Your task to perform on an android device: Open Google Maps and go to "Timeline" Image 0: 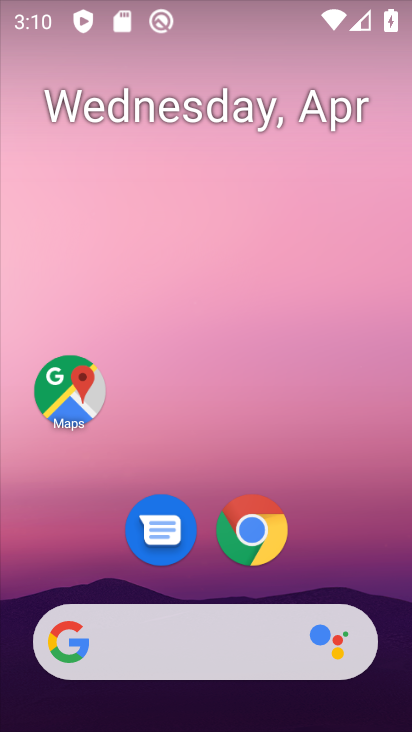
Step 0: click (83, 379)
Your task to perform on an android device: Open Google Maps and go to "Timeline" Image 1: 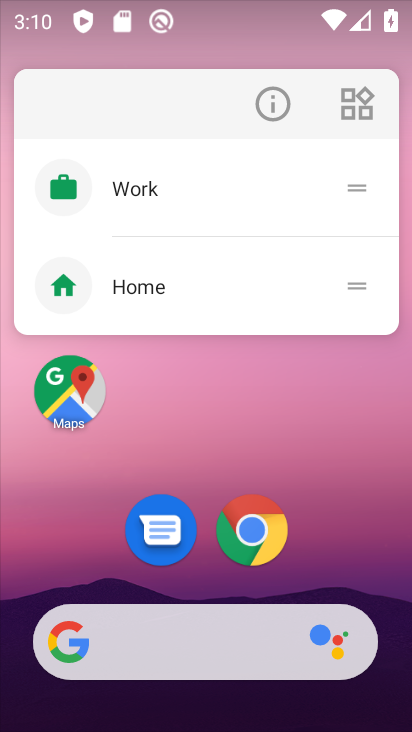
Step 1: click (69, 407)
Your task to perform on an android device: Open Google Maps and go to "Timeline" Image 2: 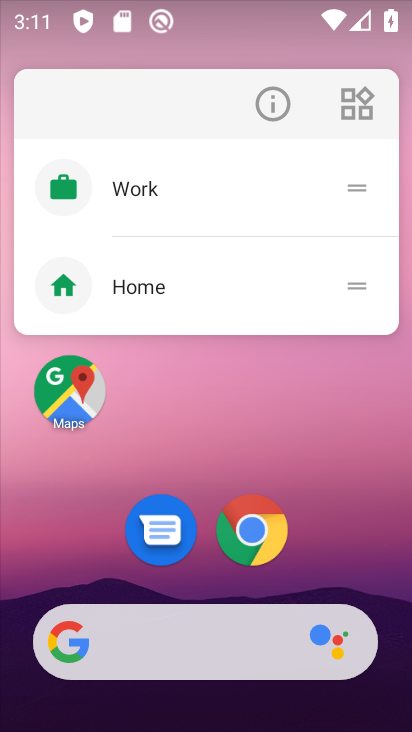
Step 2: click (60, 389)
Your task to perform on an android device: Open Google Maps and go to "Timeline" Image 3: 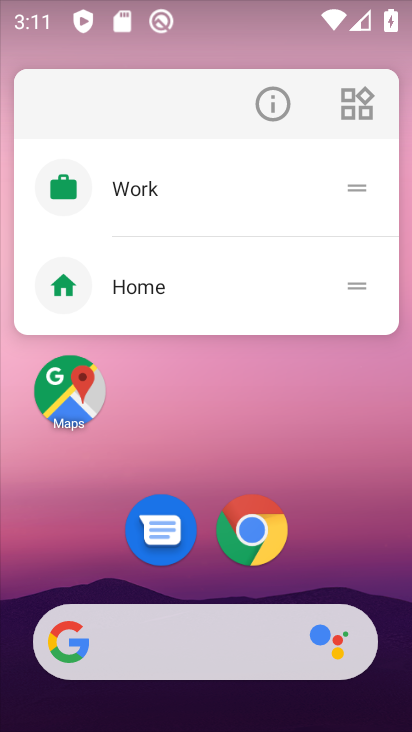
Step 3: click (73, 387)
Your task to perform on an android device: Open Google Maps and go to "Timeline" Image 4: 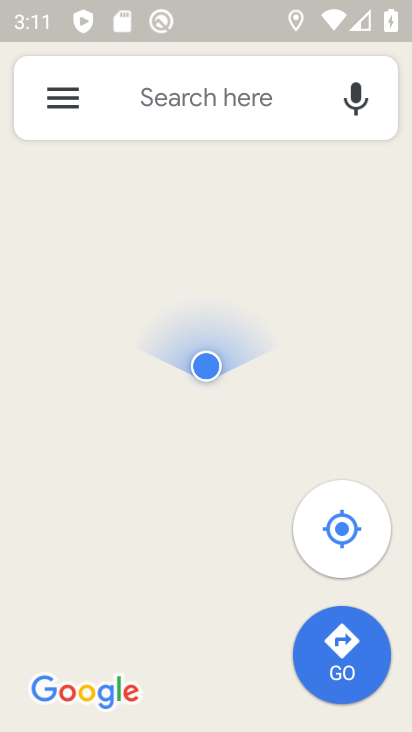
Step 4: click (69, 95)
Your task to perform on an android device: Open Google Maps and go to "Timeline" Image 5: 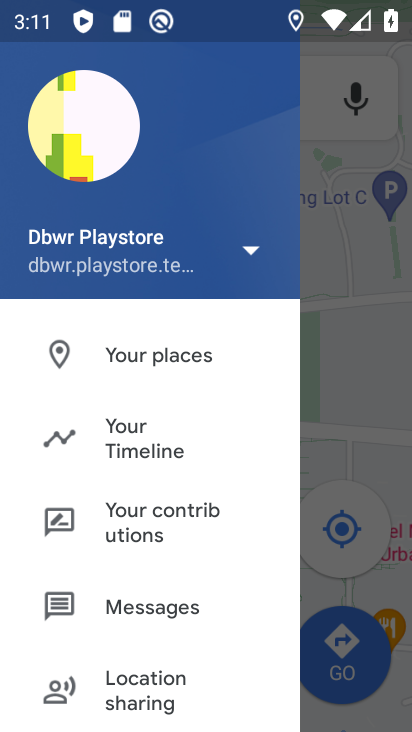
Step 5: click (152, 435)
Your task to perform on an android device: Open Google Maps and go to "Timeline" Image 6: 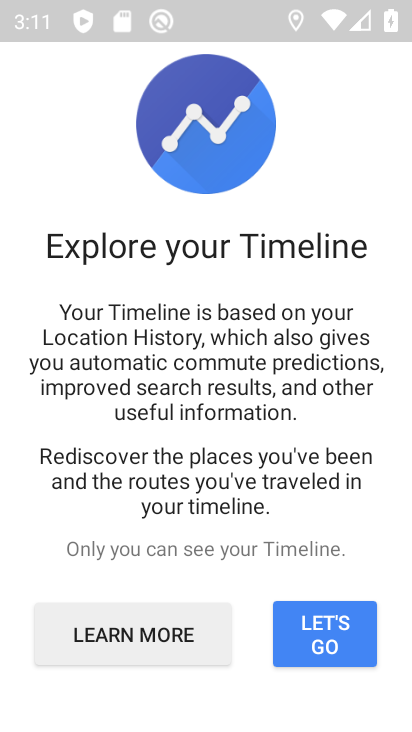
Step 6: click (340, 625)
Your task to perform on an android device: Open Google Maps and go to "Timeline" Image 7: 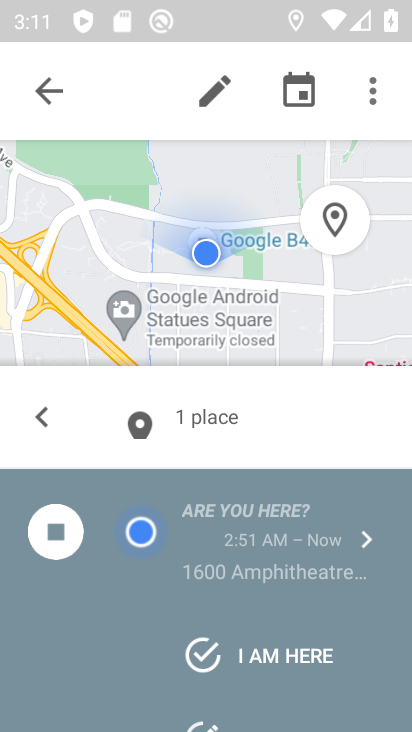
Step 7: task complete